Your task to perform on an android device: Open settings on Google Maps Image 0: 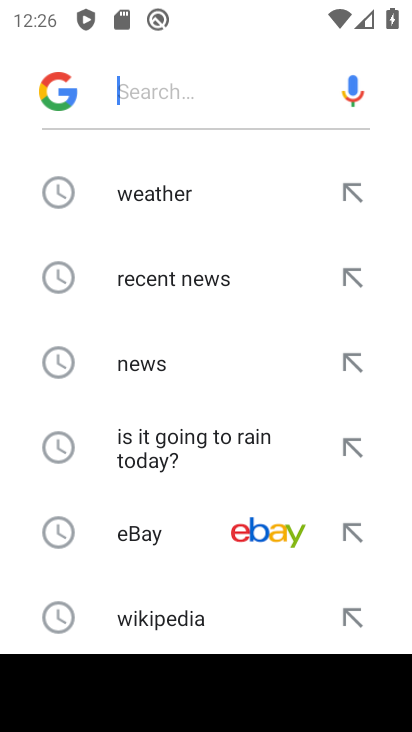
Step 0: press home button
Your task to perform on an android device: Open settings on Google Maps Image 1: 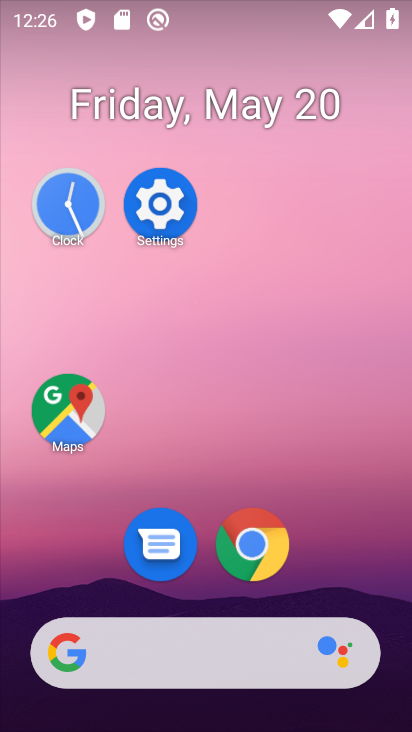
Step 1: click (73, 416)
Your task to perform on an android device: Open settings on Google Maps Image 2: 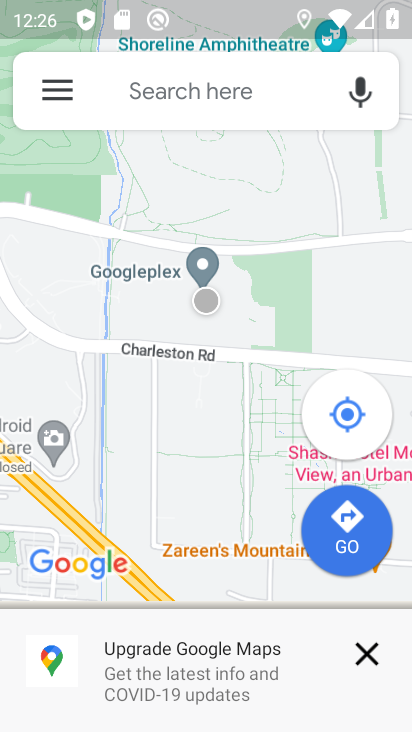
Step 2: click (38, 88)
Your task to perform on an android device: Open settings on Google Maps Image 3: 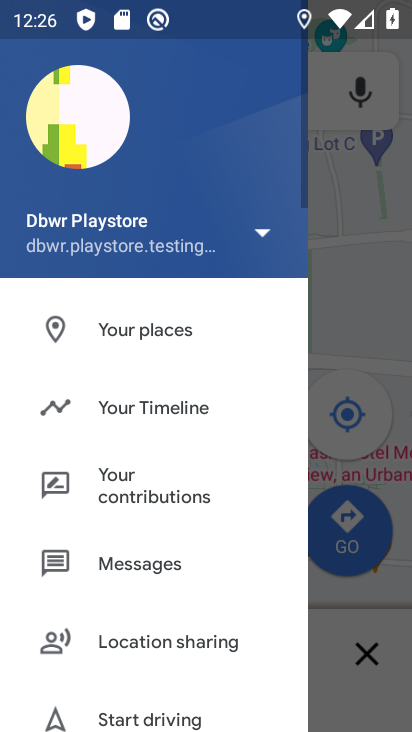
Step 3: drag from (162, 580) to (190, 163)
Your task to perform on an android device: Open settings on Google Maps Image 4: 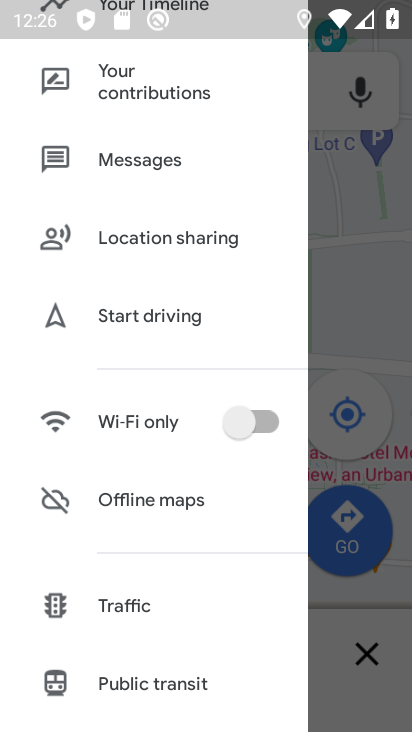
Step 4: drag from (153, 470) to (131, 224)
Your task to perform on an android device: Open settings on Google Maps Image 5: 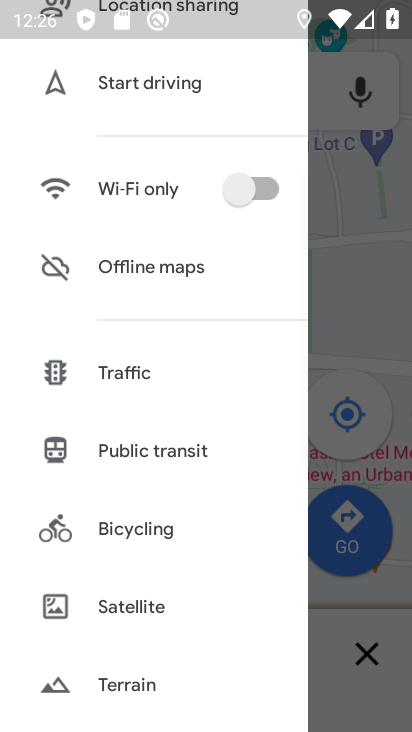
Step 5: drag from (143, 633) to (156, 208)
Your task to perform on an android device: Open settings on Google Maps Image 6: 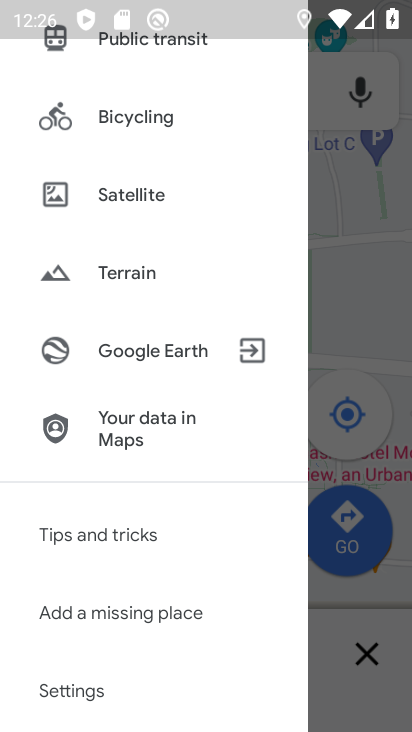
Step 6: click (116, 702)
Your task to perform on an android device: Open settings on Google Maps Image 7: 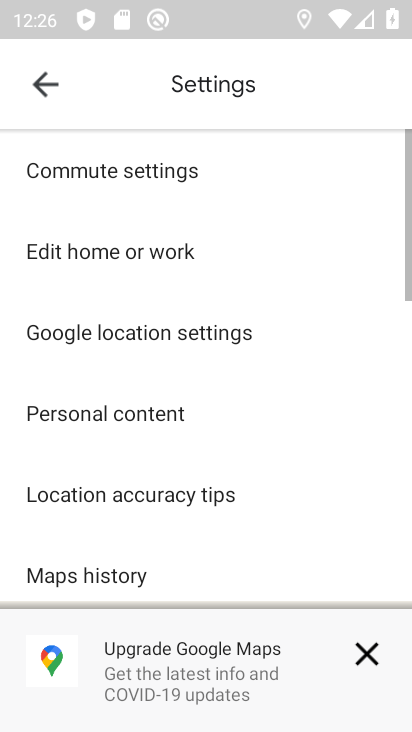
Step 7: task complete